Your task to perform on an android device: turn notification dots off Image 0: 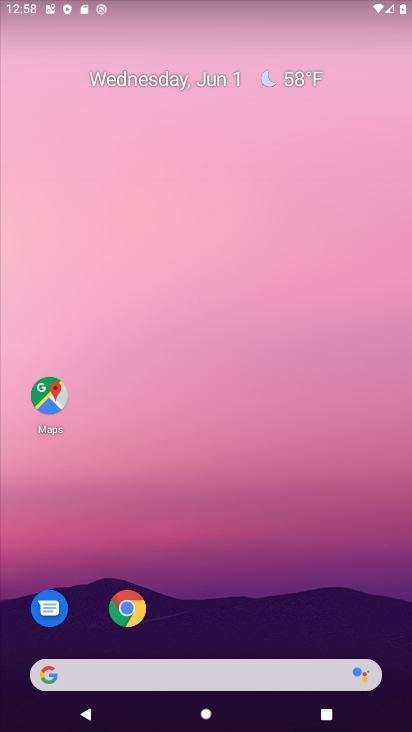
Step 0: drag from (248, 628) to (268, 139)
Your task to perform on an android device: turn notification dots off Image 1: 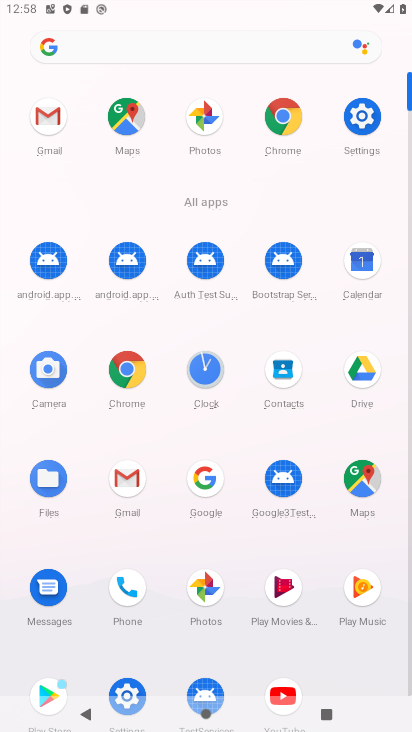
Step 1: click (387, 100)
Your task to perform on an android device: turn notification dots off Image 2: 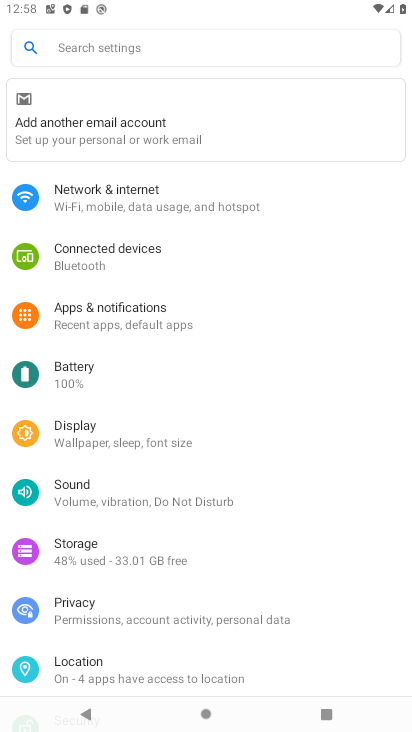
Step 2: click (93, 301)
Your task to perform on an android device: turn notification dots off Image 3: 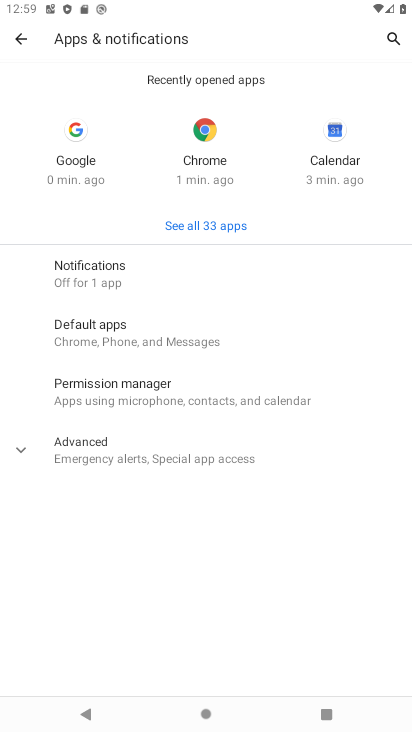
Step 3: click (73, 267)
Your task to perform on an android device: turn notification dots off Image 4: 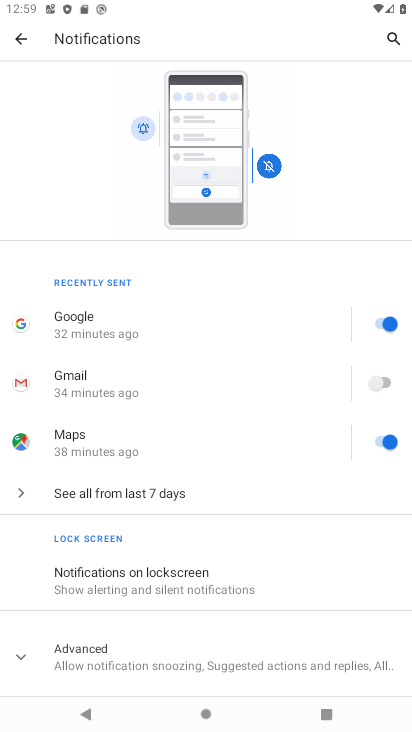
Step 4: click (106, 581)
Your task to perform on an android device: turn notification dots off Image 5: 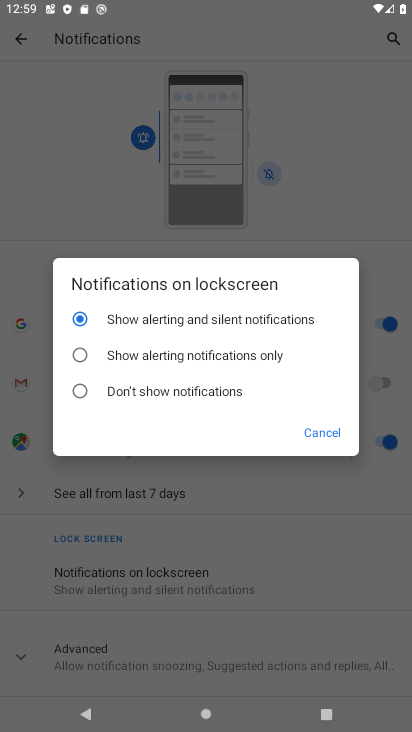
Step 5: click (320, 434)
Your task to perform on an android device: turn notification dots off Image 6: 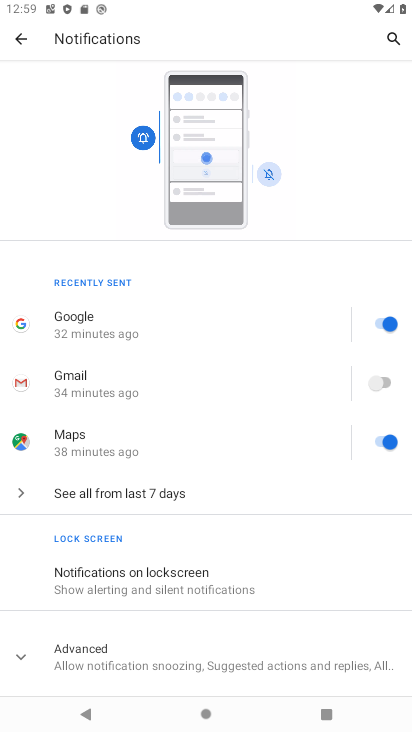
Step 6: click (223, 639)
Your task to perform on an android device: turn notification dots off Image 7: 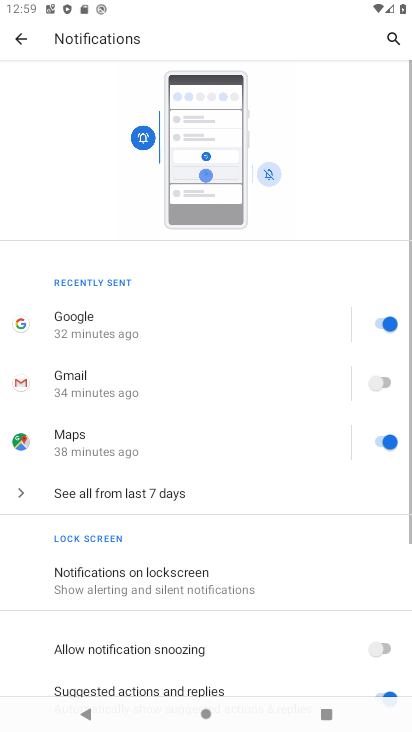
Step 7: drag from (224, 576) to (240, 269)
Your task to perform on an android device: turn notification dots off Image 8: 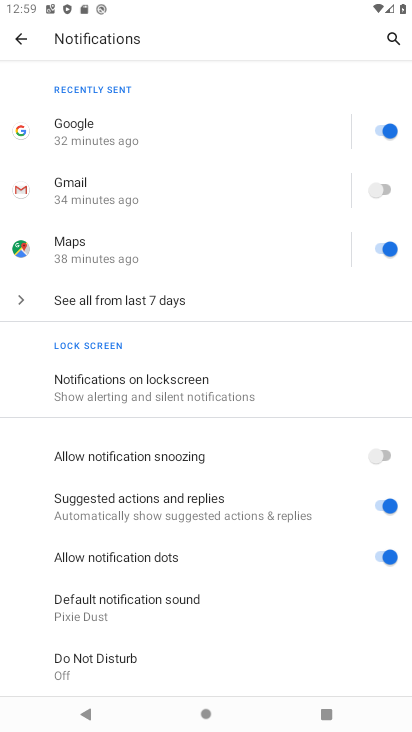
Step 8: click (386, 550)
Your task to perform on an android device: turn notification dots off Image 9: 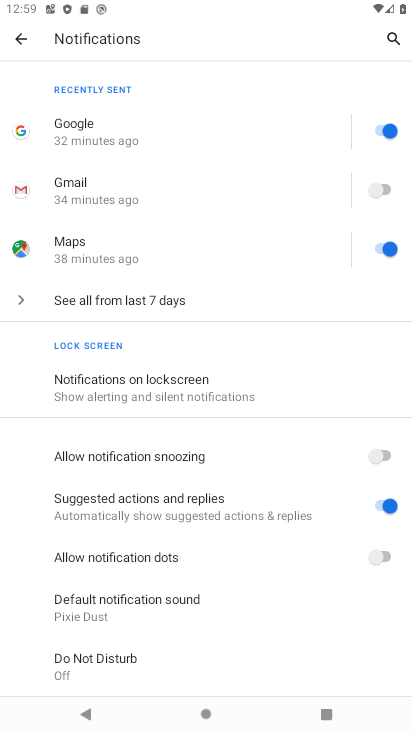
Step 9: task complete